Your task to perform on an android device: What is the news today? Image 0: 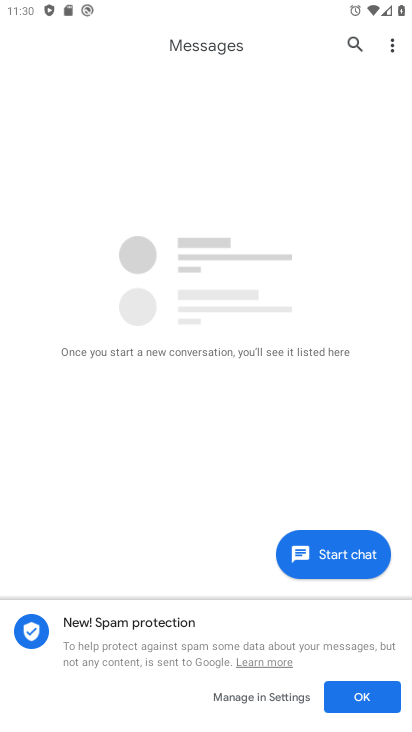
Step 0: press home button
Your task to perform on an android device: What is the news today? Image 1: 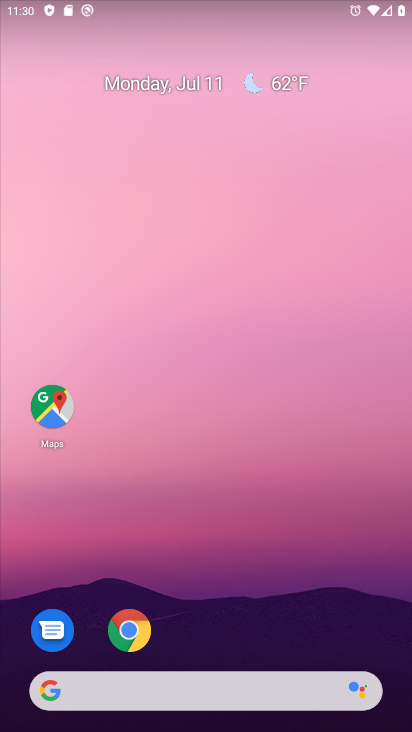
Step 1: click (238, 695)
Your task to perform on an android device: What is the news today? Image 2: 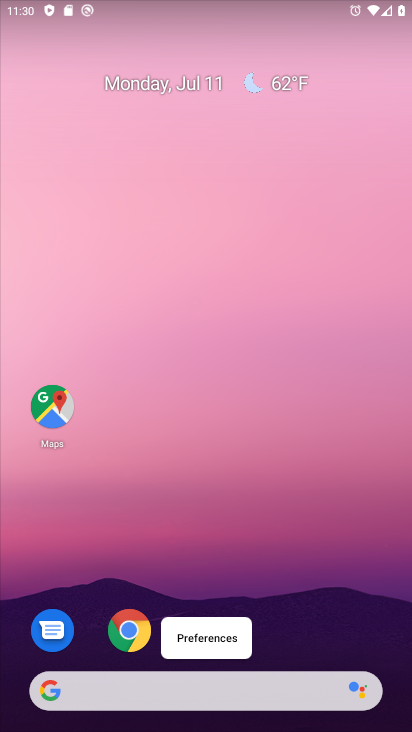
Step 2: click (231, 698)
Your task to perform on an android device: What is the news today? Image 3: 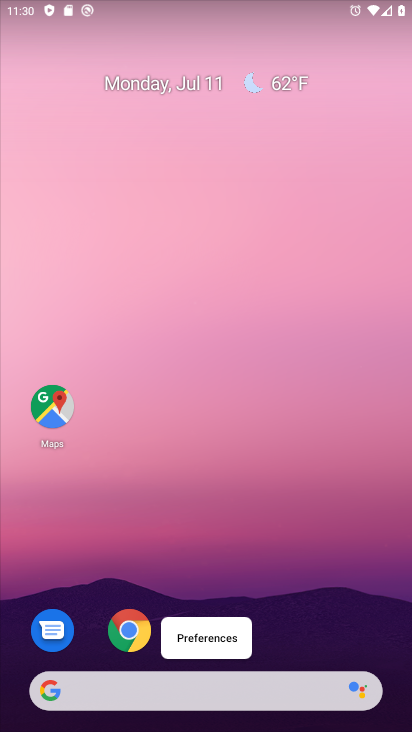
Step 3: click (234, 700)
Your task to perform on an android device: What is the news today? Image 4: 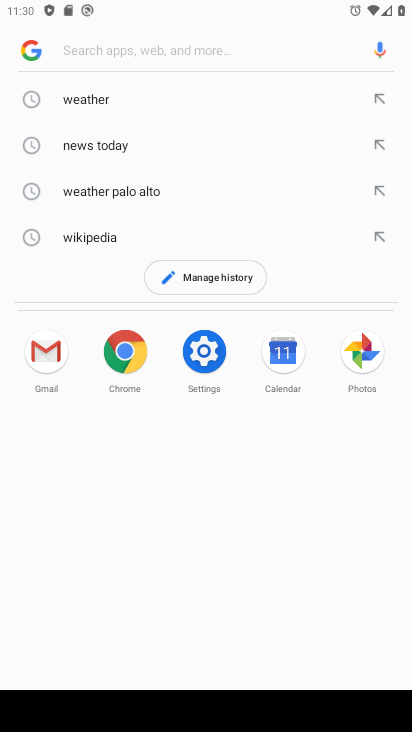
Step 4: click (120, 147)
Your task to perform on an android device: What is the news today? Image 5: 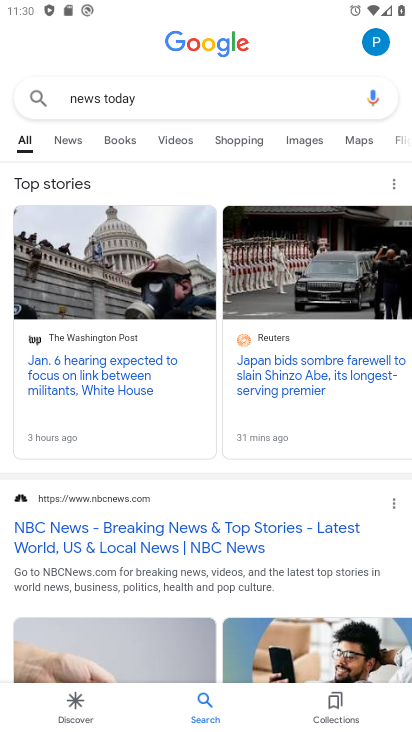
Step 5: click (70, 140)
Your task to perform on an android device: What is the news today? Image 6: 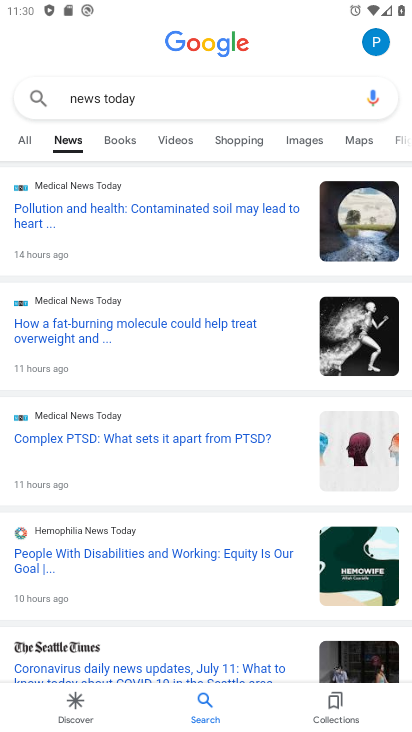
Step 6: task complete